Your task to perform on an android device: Open notification settings Image 0: 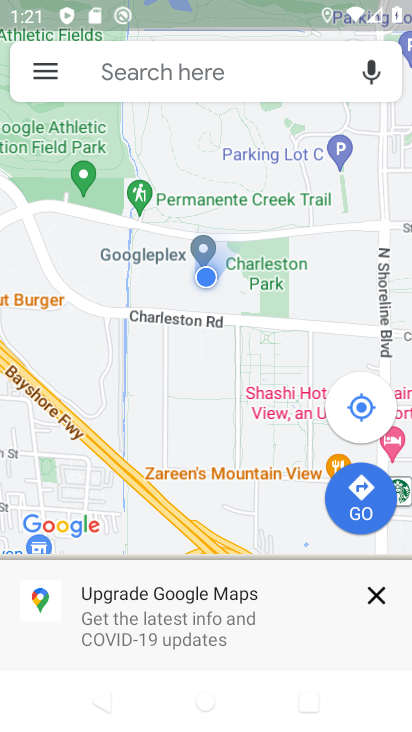
Step 0: press home button
Your task to perform on an android device: Open notification settings Image 1: 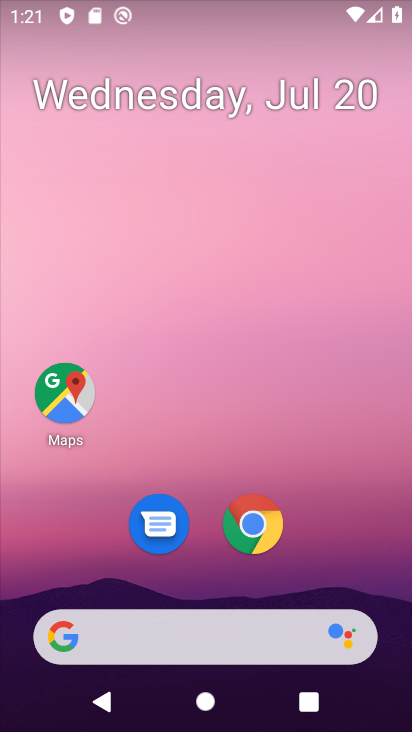
Step 1: drag from (318, 536) to (353, 42)
Your task to perform on an android device: Open notification settings Image 2: 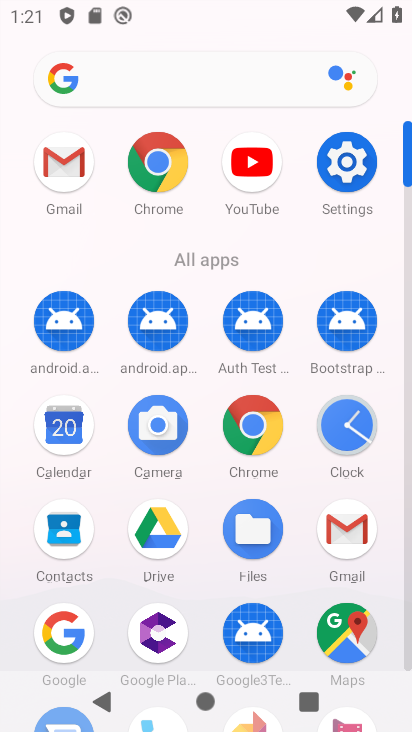
Step 2: click (343, 170)
Your task to perform on an android device: Open notification settings Image 3: 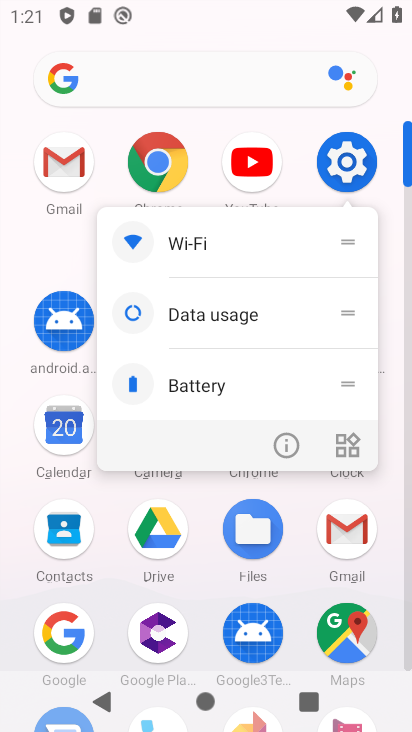
Step 3: click (344, 153)
Your task to perform on an android device: Open notification settings Image 4: 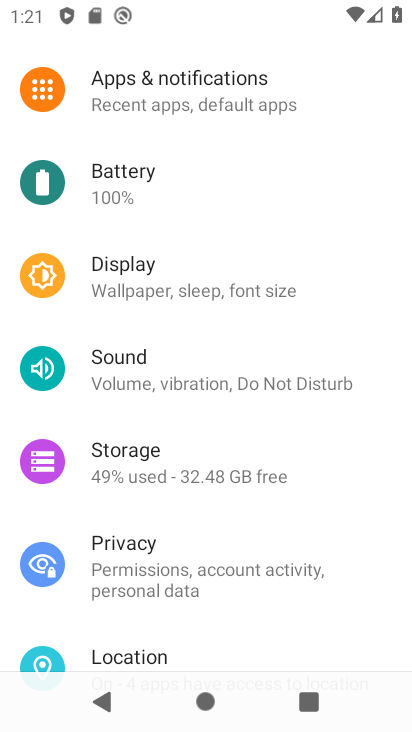
Step 4: click (246, 103)
Your task to perform on an android device: Open notification settings Image 5: 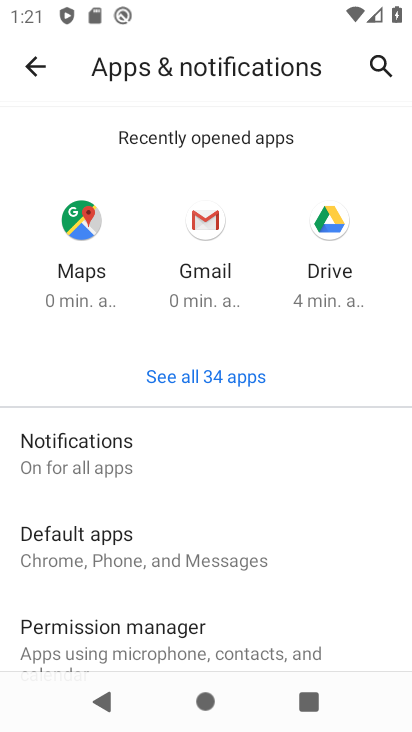
Step 5: click (112, 445)
Your task to perform on an android device: Open notification settings Image 6: 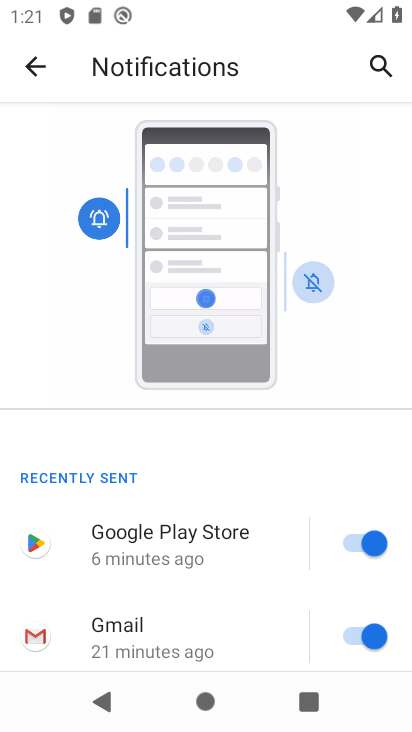
Step 6: task complete